Your task to perform on an android device: When is my next meeting? Image 0: 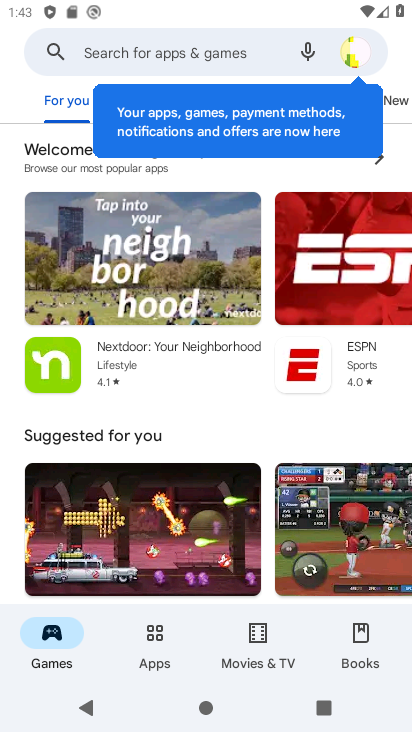
Step 0: press back button
Your task to perform on an android device: When is my next meeting? Image 1: 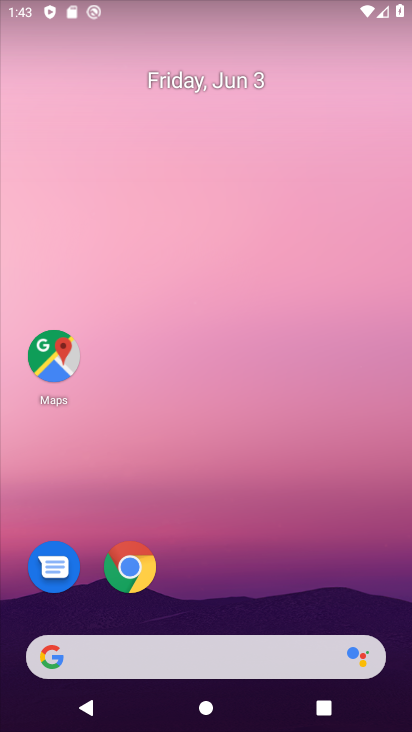
Step 1: drag from (187, 643) to (236, 124)
Your task to perform on an android device: When is my next meeting? Image 2: 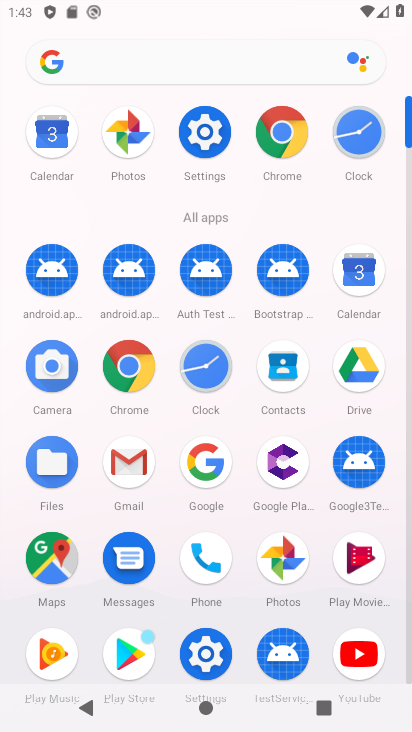
Step 2: click (354, 283)
Your task to perform on an android device: When is my next meeting? Image 3: 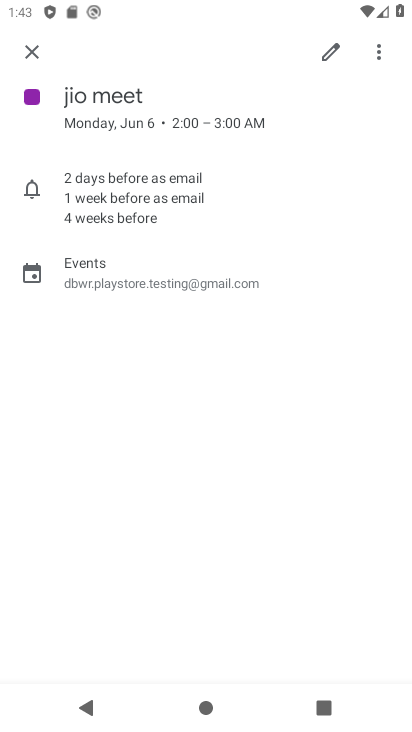
Step 3: task complete